Your task to perform on an android device: find photos in the google photos app Image 0: 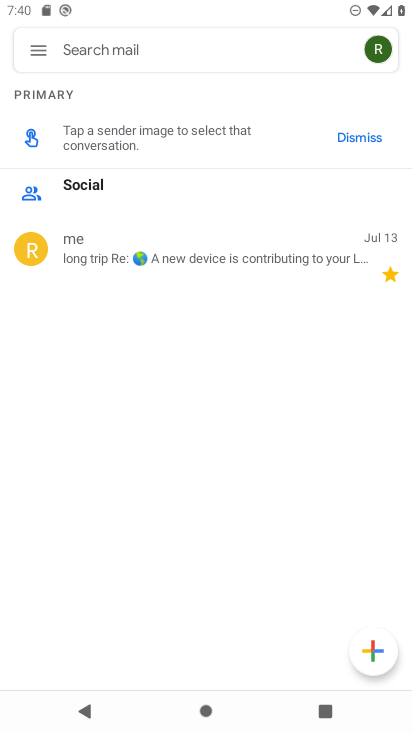
Step 0: press home button
Your task to perform on an android device: find photos in the google photos app Image 1: 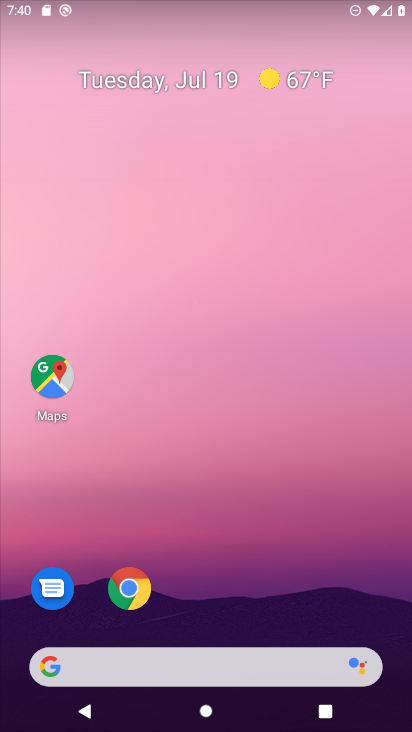
Step 1: drag from (344, 572) to (362, 109)
Your task to perform on an android device: find photos in the google photos app Image 2: 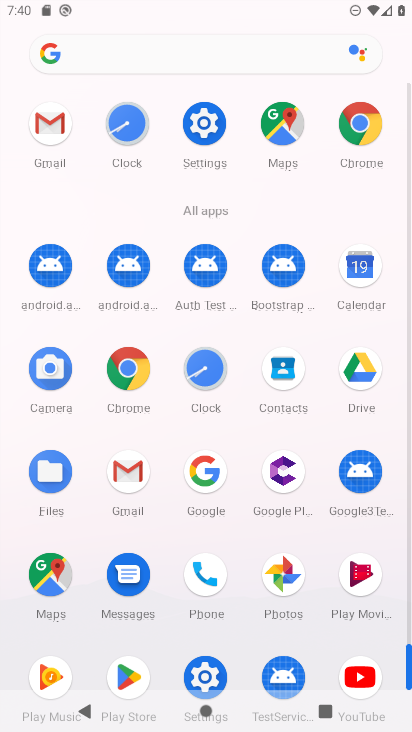
Step 2: click (290, 573)
Your task to perform on an android device: find photos in the google photos app Image 3: 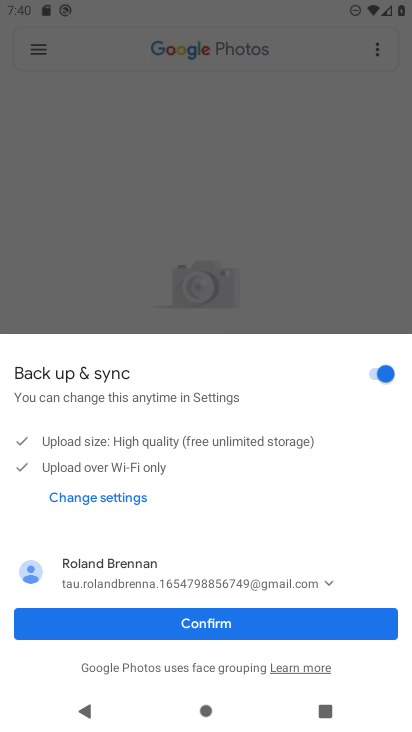
Step 3: click (255, 623)
Your task to perform on an android device: find photos in the google photos app Image 4: 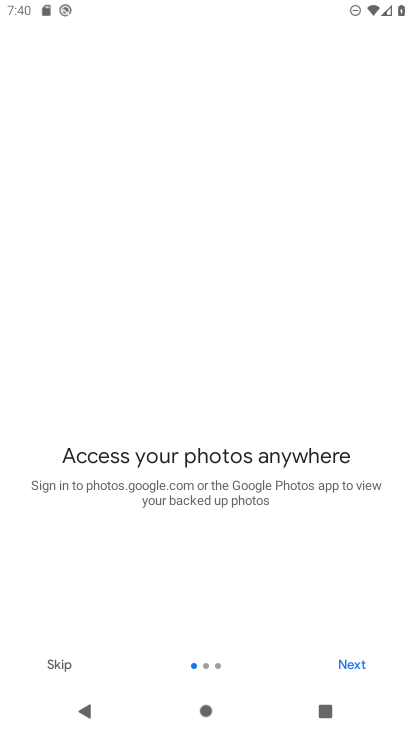
Step 4: click (351, 664)
Your task to perform on an android device: find photos in the google photos app Image 5: 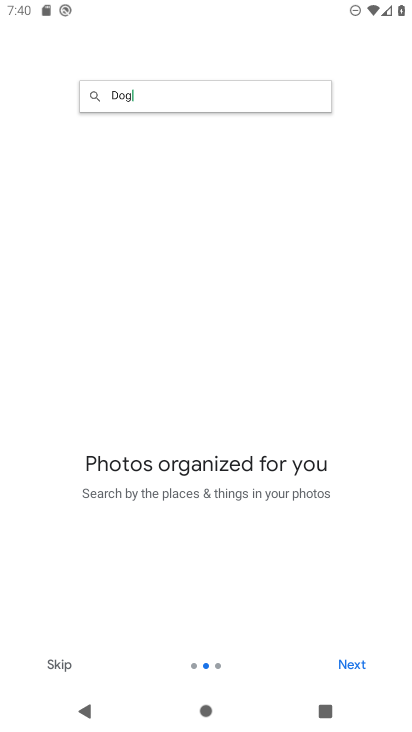
Step 5: click (357, 692)
Your task to perform on an android device: find photos in the google photos app Image 6: 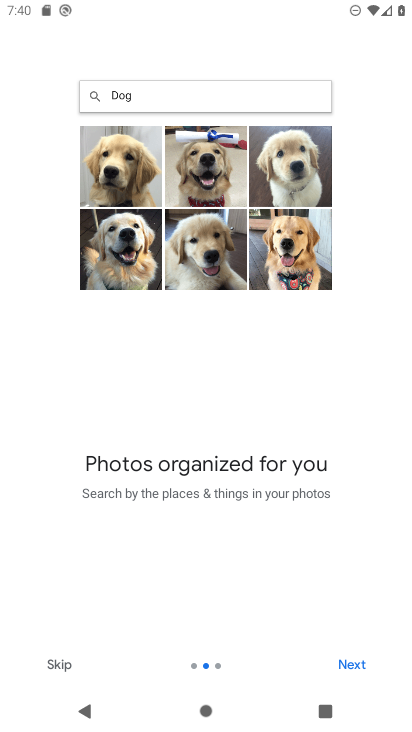
Step 6: click (354, 655)
Your task to perform on an android device: find photos in the google photos app Image 7: 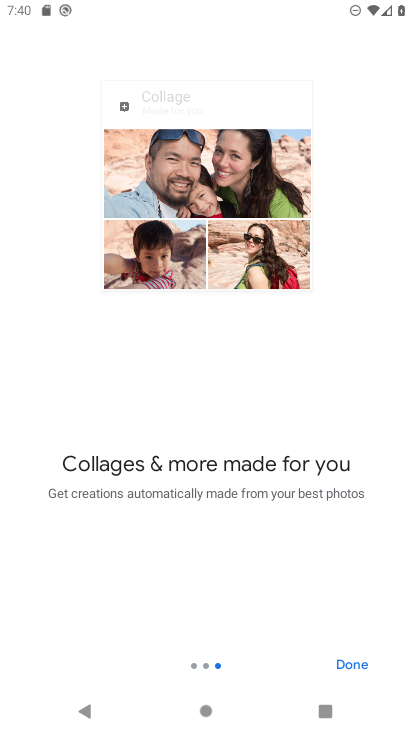
Step 7: click (346, 668)
Your task to perform on an android device: find photos in the google photos app Image 8: 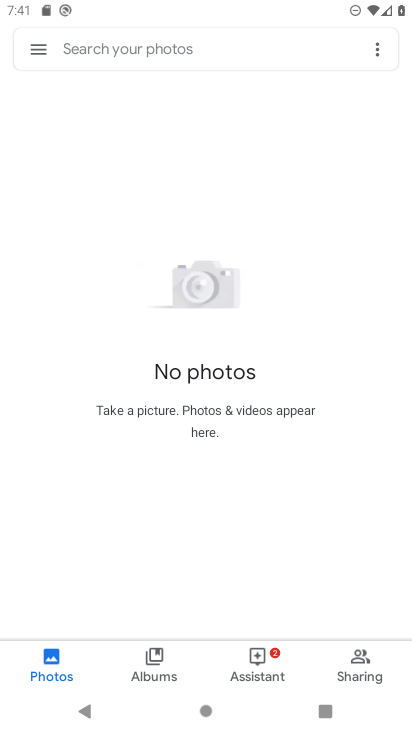
Step 8: task complete